Your task to perform on an android device: turn on the 24-hour format for clock Image 0: 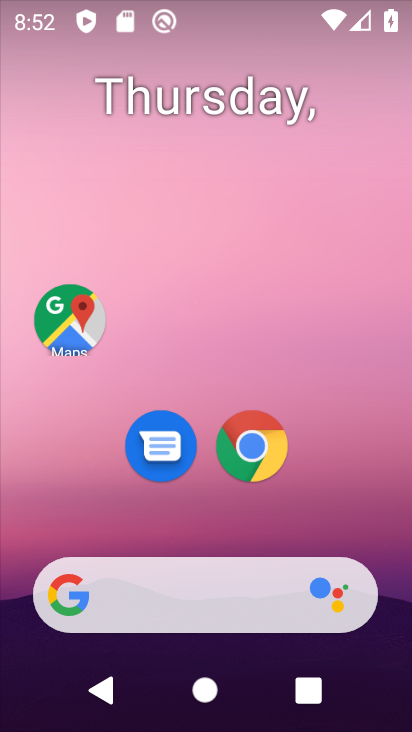
Step 0: drag from (274, 515) to (339, 52)
Your task to perform on an android device: turn on the 24-hour format for clock Image 1: 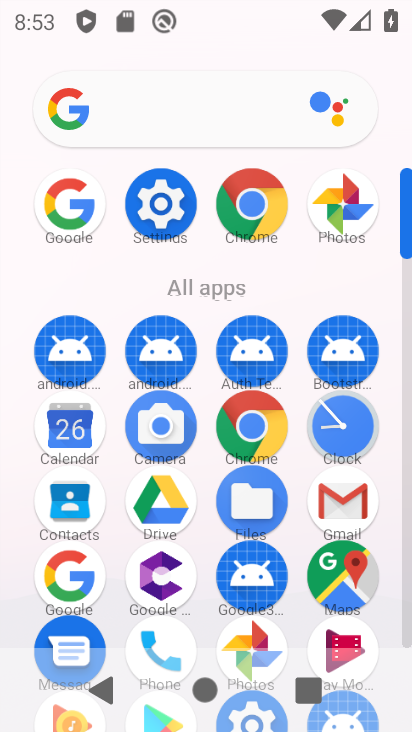
Step 1: click (401, 625)
Your task to perform on an android device: turn on the 24-hour format for clock Image 2: 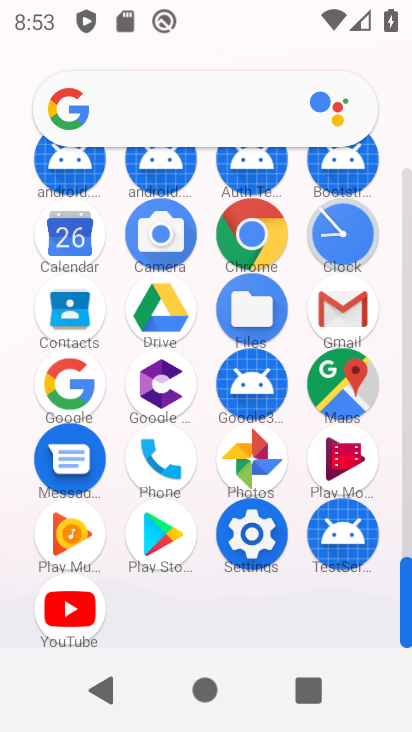
Step 2: click (224, 569)
Your task to perform on an android device: turn on the 24-hour format for clock Image 3: 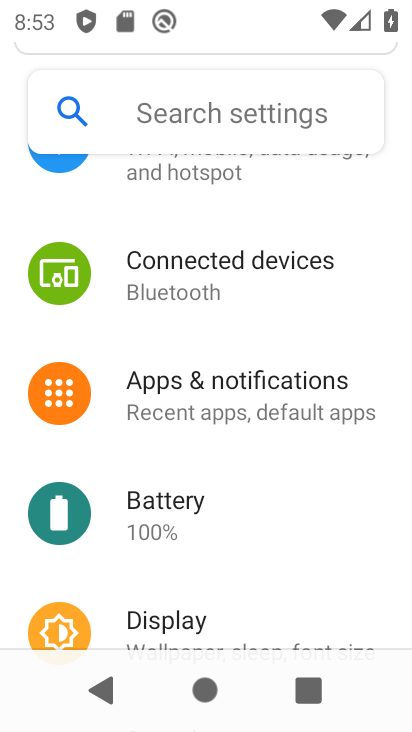
Step 3: press home button
Your task to perform on an android device: turn on the 24-hour format for clock Image 4: 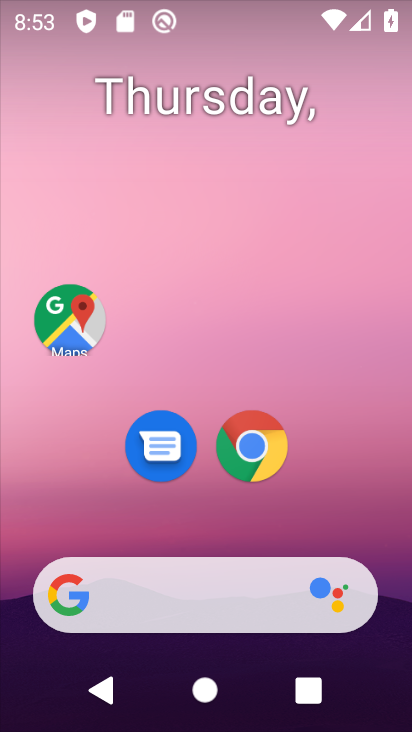
Step 4: drag from (340, 500) to (315, 103)
Your task to perform on an android device: turn on the 24-hour format for clock Image 5: 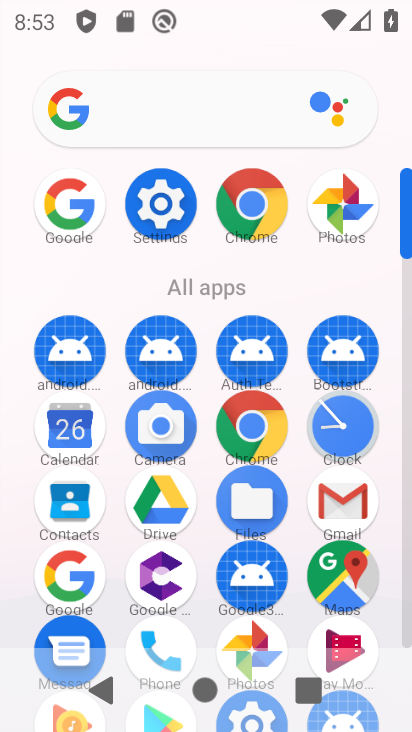
Step 5: click (404, 634)
Your task to perform on an android device: turn on the 24-hour format for clock Image 6: 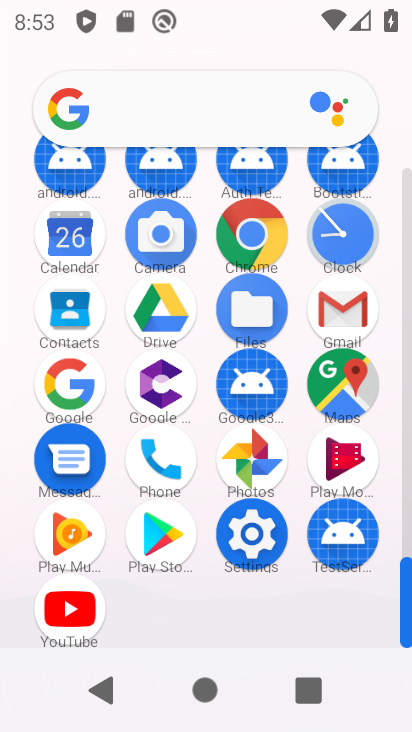
Step 6: click (354, 241)
Your task to perform on an android device: turn on the 24-hour format for clock Image 7: 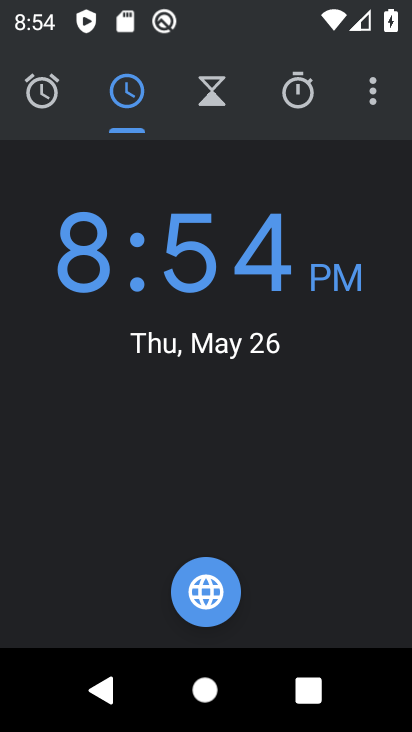
Step 7: click (372, 89)
Your task to perform on an android device: turn on the 24-hour format for clock Image 8: 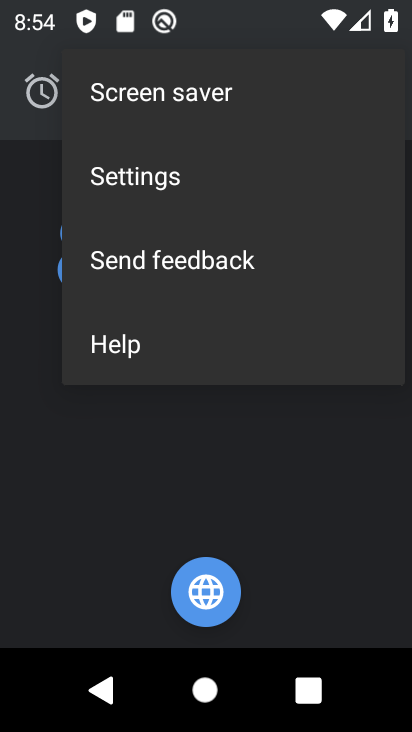
Step 8: click (204, 174)
Your task to perform on an android device: turn on the 24-hour format for clock Image 9: 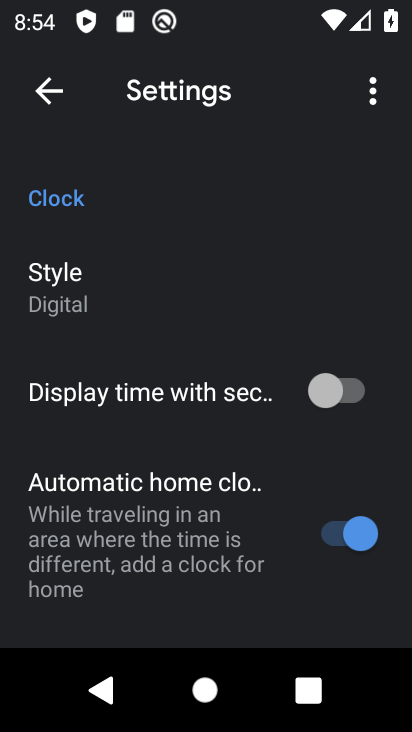
Step 9: drag from (185, 589) to (192, 213)
Your task to perform on an android device: turn on the 24-hour format for clock Image 10: 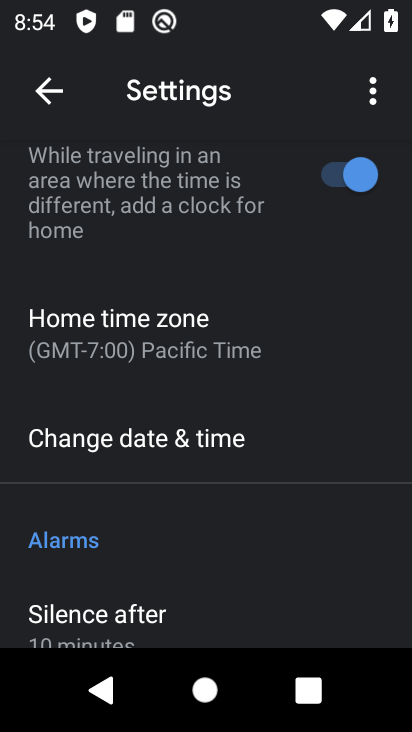
Step 10: click (122, 457)
Your task to perform on an android device: turn on the 24-hour format for clock Image 11: 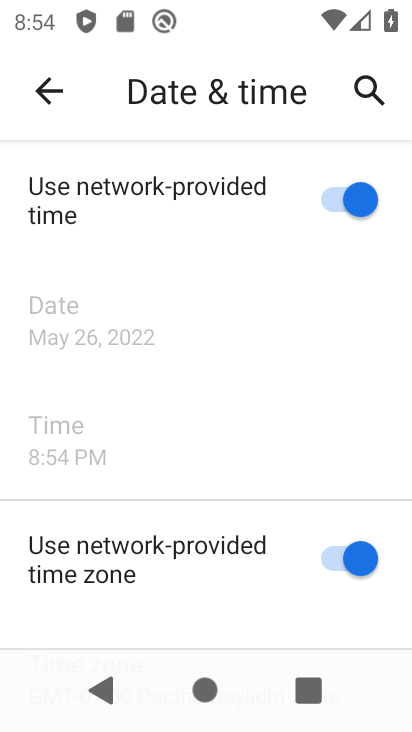
Step 11: drag from (146, 542) to (202, 162)
Your task to perform on an android device: turn on the 24-hour format for clock Image 12: 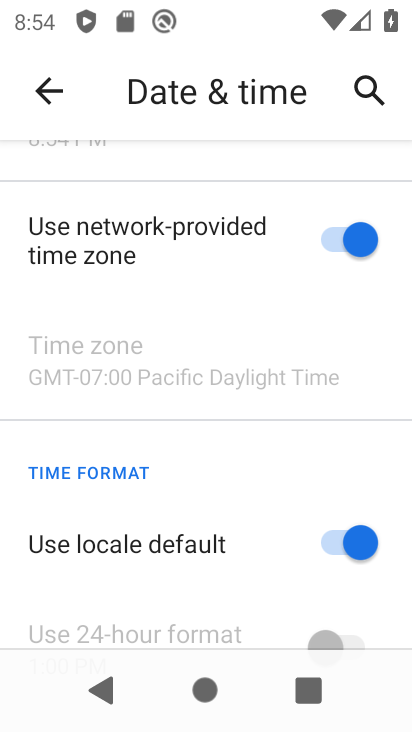
Step 12: drag from (194, 543) to (167, 198)
Your task to perform on an android device: turn on the 24-hour format for clock Image 13: 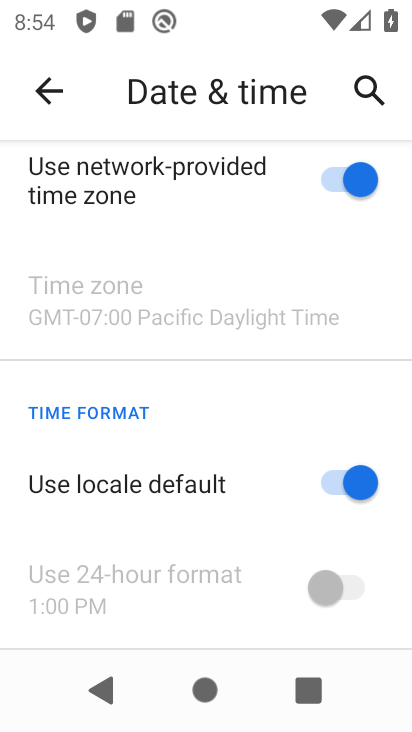
Step 13: click (265, 477)
Your task to perform on an android device: turn on the 24-hour format for clock Image 14: 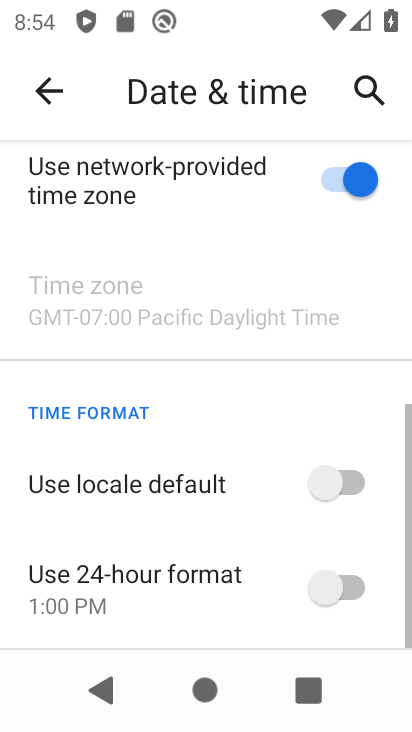
Step 14: click (259, 581)
Your task to perform on an android device: turn on the 24-hour format for clock Image 15: 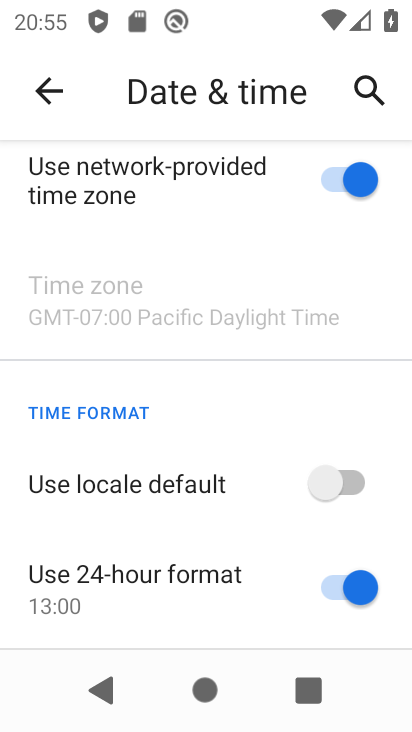
Step 15: task complete